Your task to perform on an android device: turn vacation reply on in the gmail app Image 0: 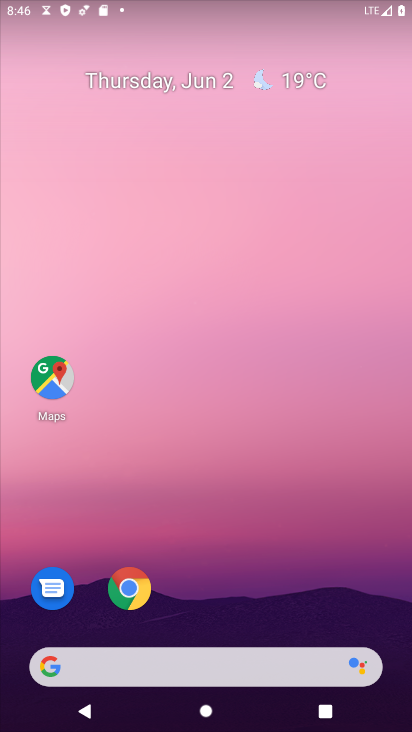
Step 0: drag from (176, 553) to (267, 97)
Your task to perform on an android device: turn vacation reply on in the gmail app Image 1: 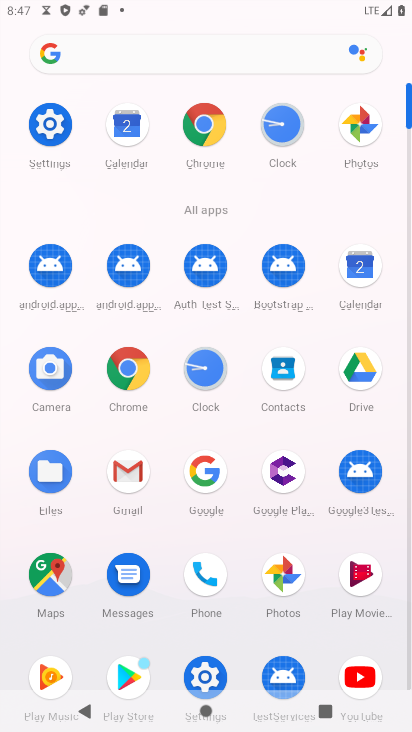
Step 1: click (134, 466)
Your task to perform on an android device: turn vacation reply on in the gmail app Image 2: 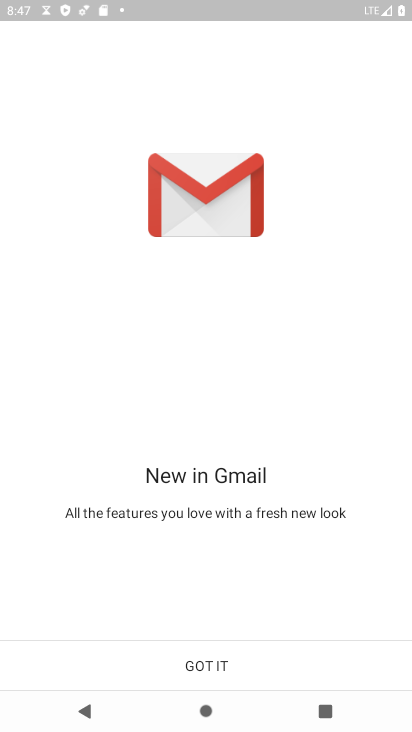
Step 2: click (245, 666)
Your task to perform on an android device: turn vacation reply on in the gmail app Image 3: 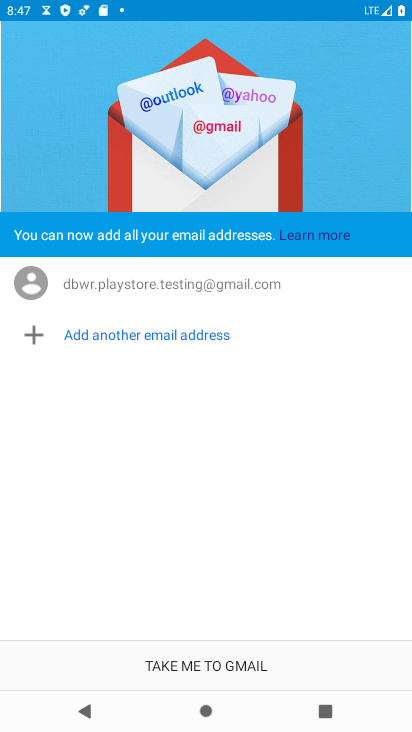
Step 3: click (204, 674)
Your task to perform on an android device: turn vacation reply on in the gmail app Image 4: 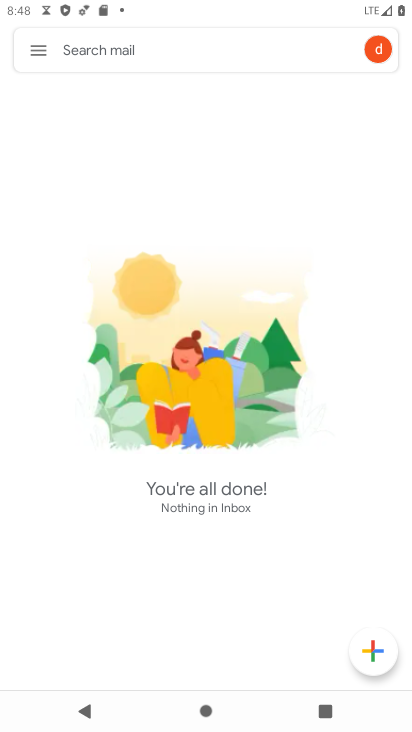
Step 4: click (36, 47)
Your task to perform on an android device: turn vacation reply on in the gmail app Image 5: 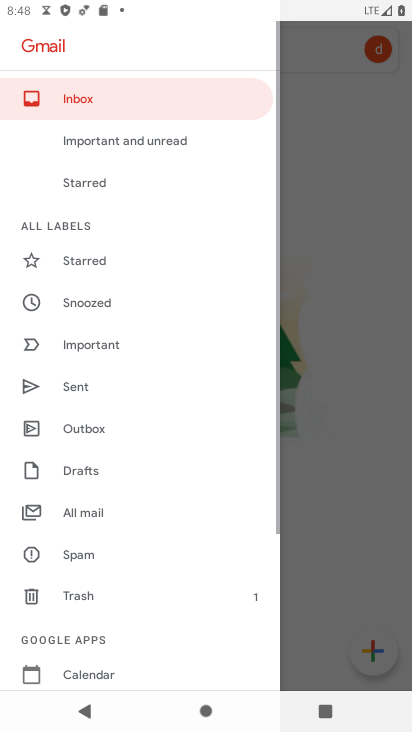
Step 5: drag from (104, 656) to (154, 61)
Your task to perform on an android device: turn vacation reply on in the gmail app Image 6: 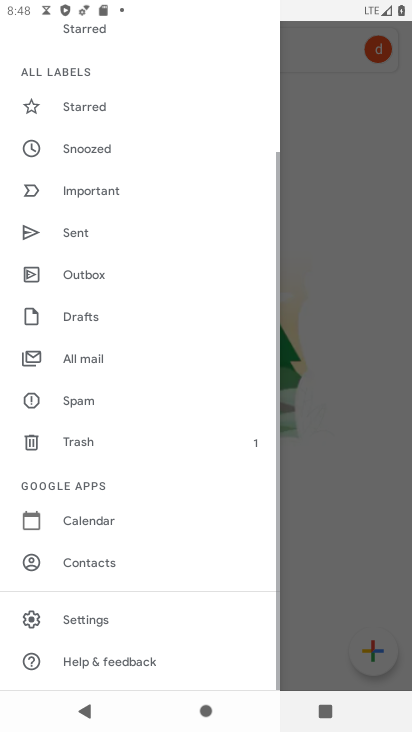
Step 6: click (91, 621)
Your task to perform on an android device: turn vacation reply on in the gmail app Image 7: 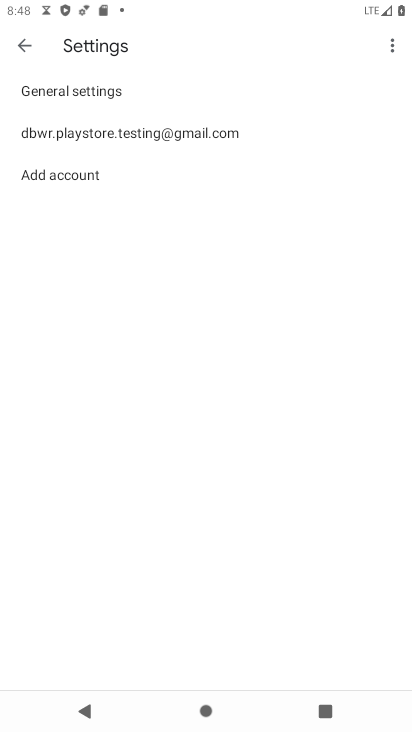
Step 7: click (108, 136)
Your task to perform on an android device: turn vacation reply on in the gmail app Image 8: 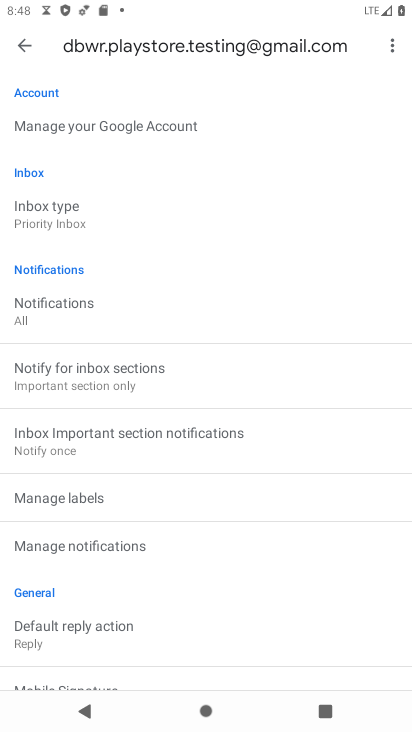
Step 8: drag from (143, 614) to (179, 58)
Your task to perform on an android device: turn vacation reply on in the gmail app Image 9: 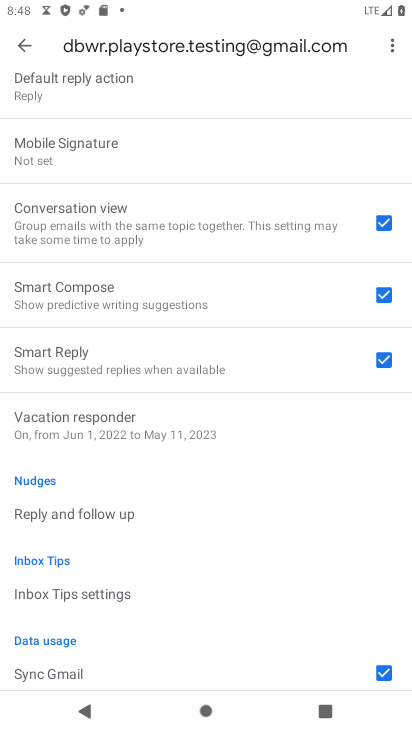
Step 9: click (73, 426)
Your task to perform on an android device: turn vacation reply on in the gmail app Image 10: 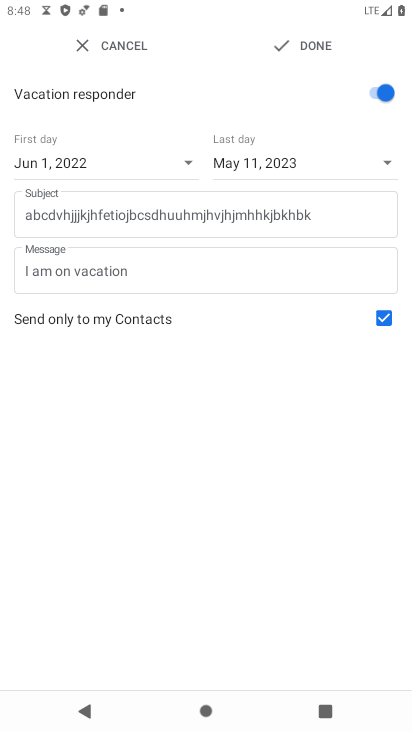
Step 10: task complete